Your task to perform on an android device: Open location settings Image 0: 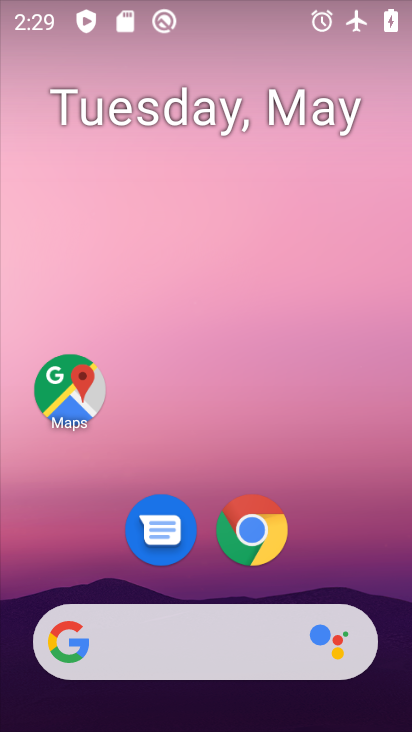
Step 0: drag from (202, 585) to (229, 153)
Your task to perform on an android device: Open location settings Image 1: 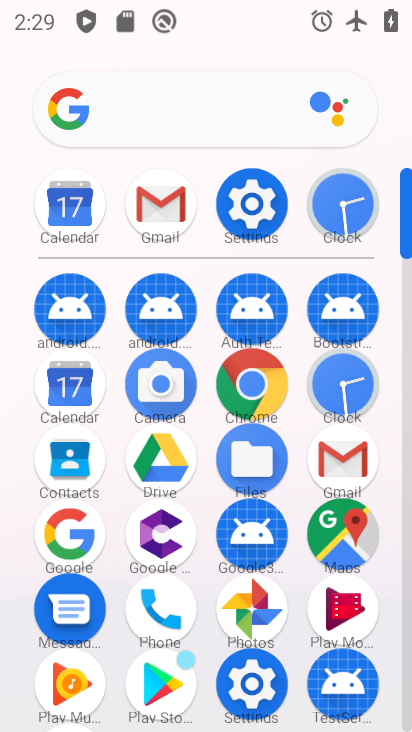
Step 1: click (238, 181)
Your task to perform on an android device: Open location settings Image 2: 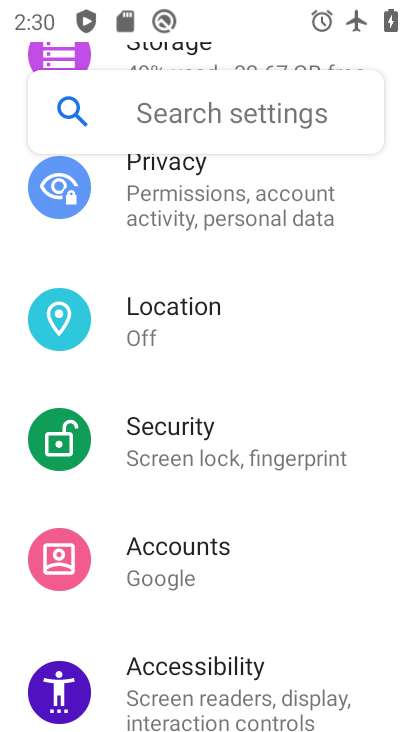
Step 2: click (240, 312)
Your task to perform on an android device: Open location settings Image 3: 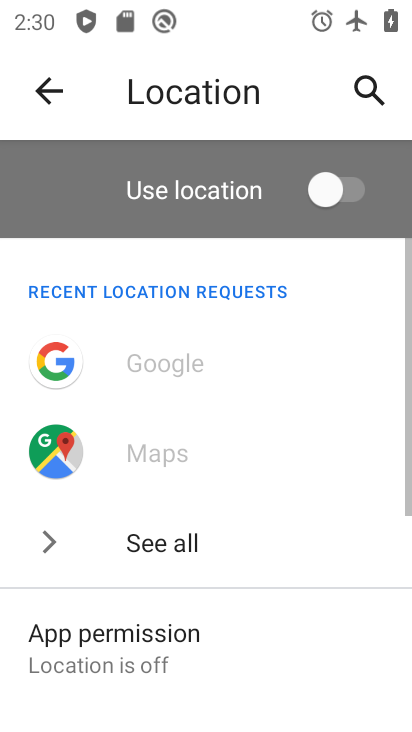
Step 3: task complete